Your task to perform on an android device: Open the calendar app, open the side menu, and click the "Day" option Image 0: 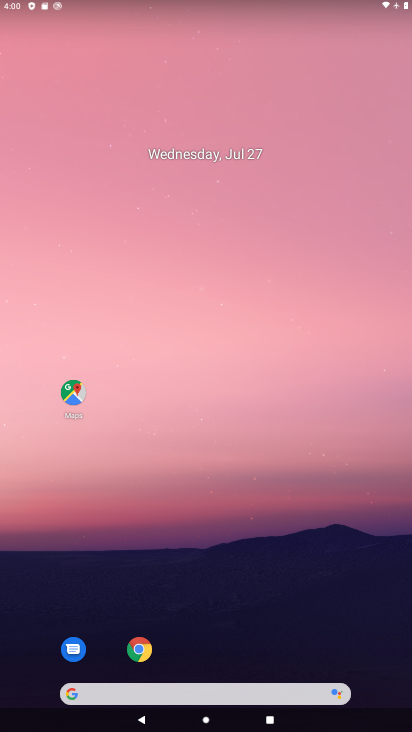
Step 0: drag from (257, 647) to (266, 84)
Your task to perform on an android device: Open the calendar app, open the side menu, and click the "Day" option Image 1: 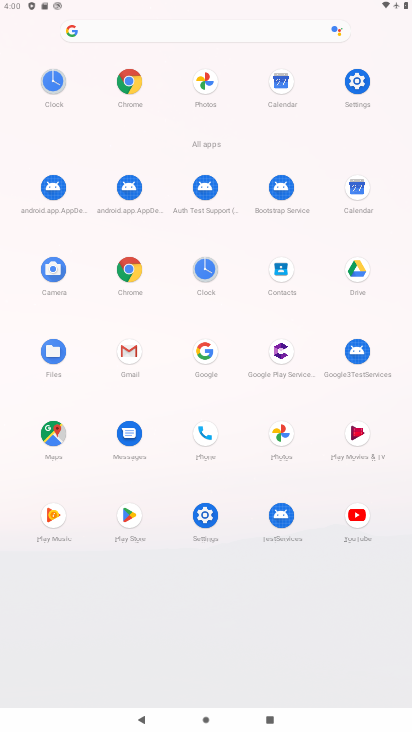
Step 1: click (355, 193)
Your task to perform on an android device: Open the calendar app, open the side menu, and click the "Day" option Image 2: 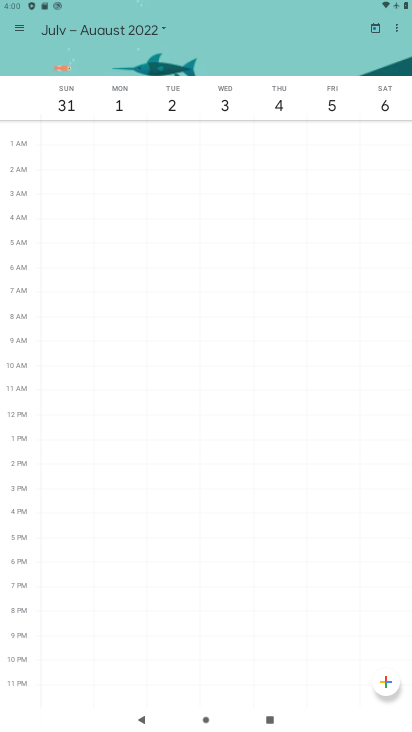
Step 2: click (15, 23)
Your task to perform on an android device: Open the calendar app, open the side menu, and click the "Day" option Image 3: 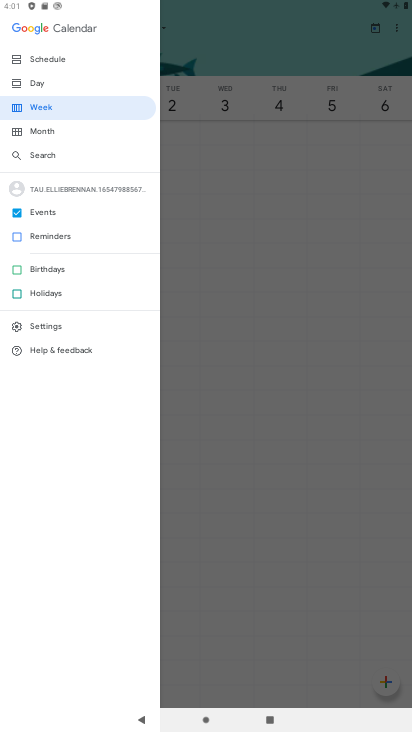
Step 3: click (49, 90)
Your task to perform on an android device: Open the calendar app, open the side menu, and click the "Day" option Image 4: 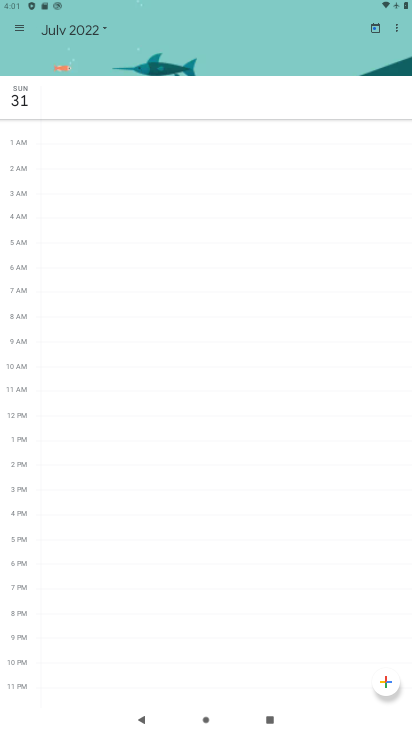
Step 4: task complete